Your task to perform on an android device: turn notification dots on Image 0: 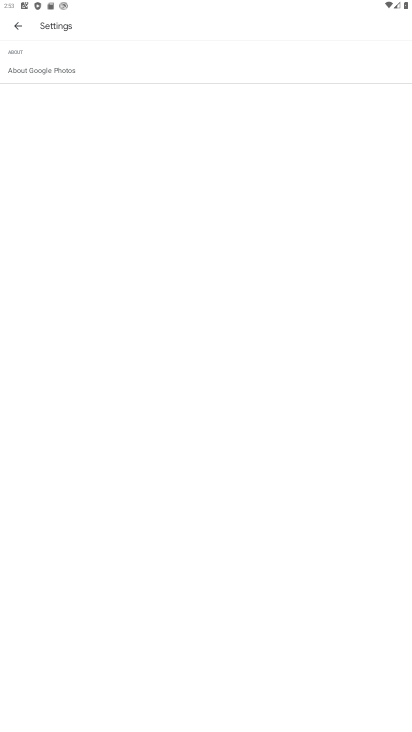
Step 0: press home button
Your task to perform on an android device: turn notification dots on Image 1: 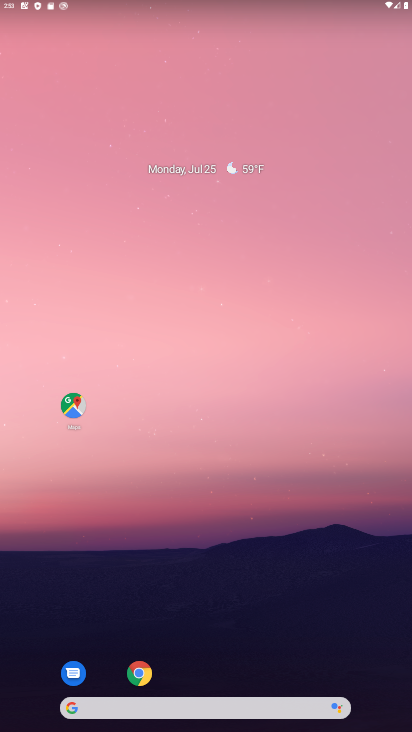
Step 1: drag from (173, 621) to (299, 140)
Your task to perform on an android device: turn notification dots on Image 2: 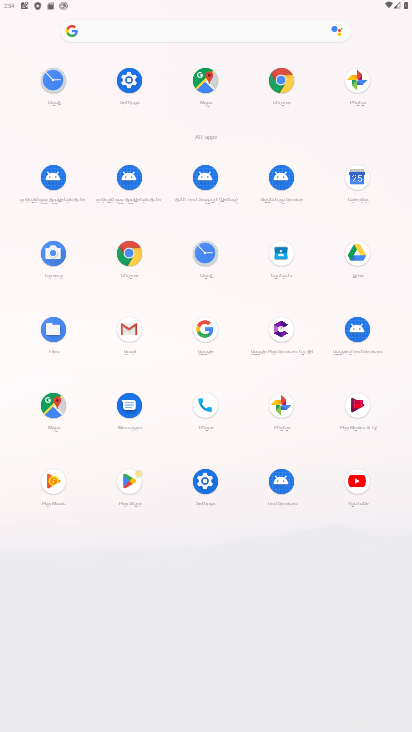
Step 2: click (122, 80)
Your task to perform on an android device: turn notification dots on Image 3: 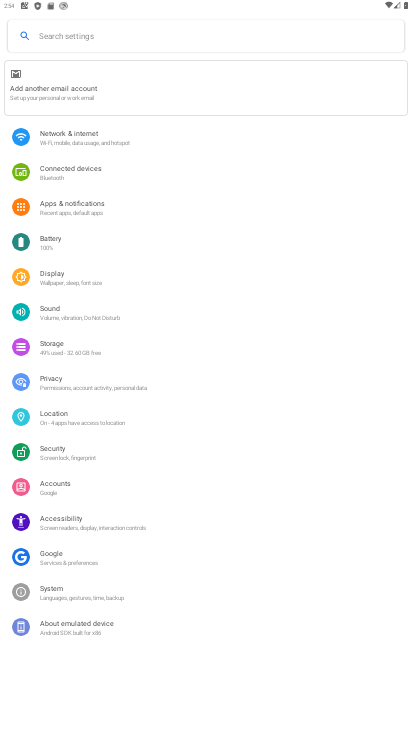
Step 3: click (88, 206)
Your task to perform on an android device: turn notification dots on Image 4: 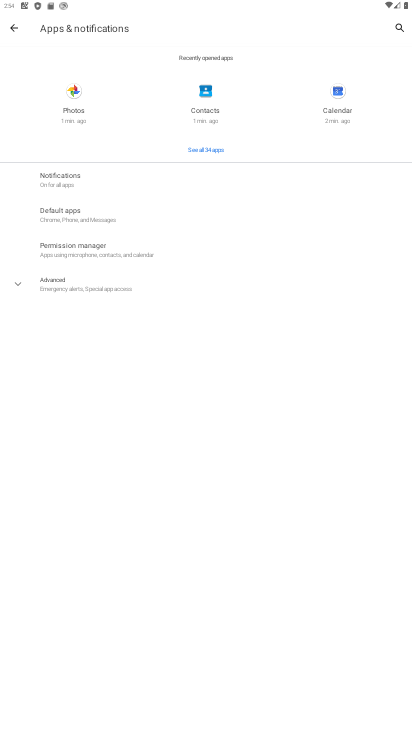
Step 4: click (62, 181)
Your task to perform on an android device: turn notification dots on Image 5: 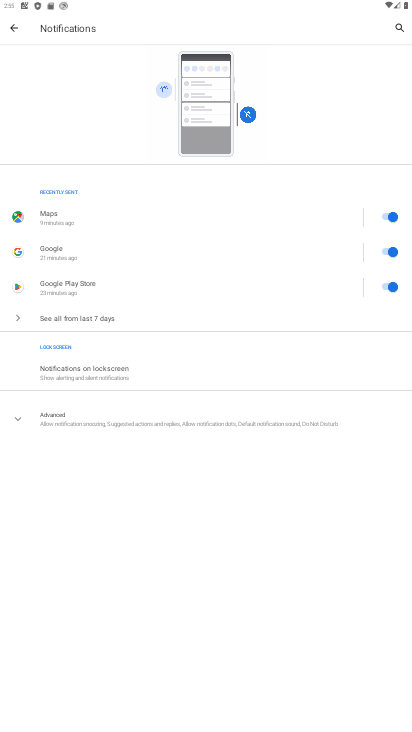
Step 5: click (68, 429)
Your task to perform on an android device: turn notification dots on Image 6: 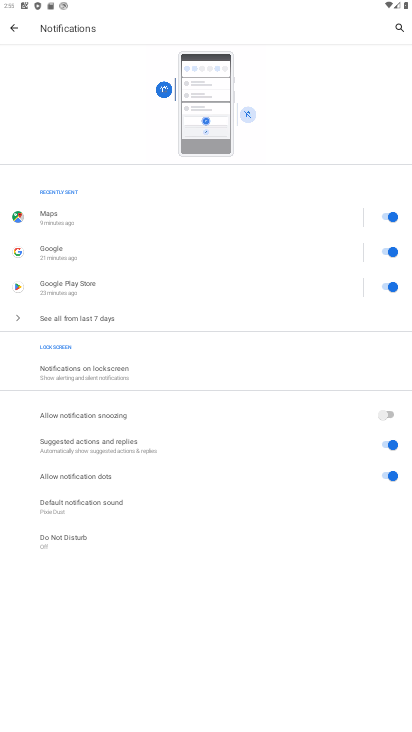
Step 6: click (380, 477)
Your task to perform on an android device: turn notification dots on Image 7: 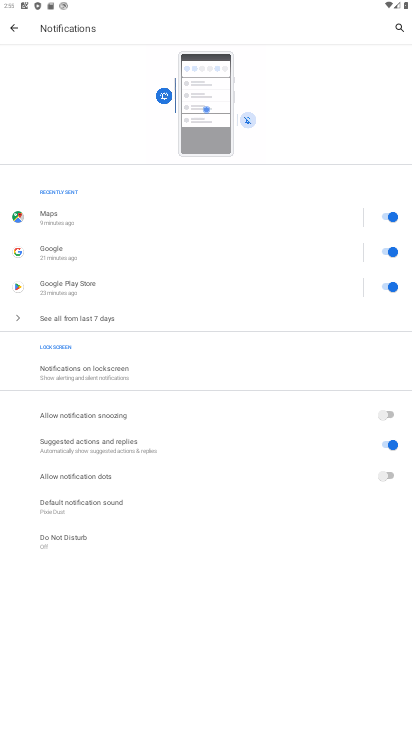
Step 7: task complete